Your task to perform on an android device: Open maps Image 0: 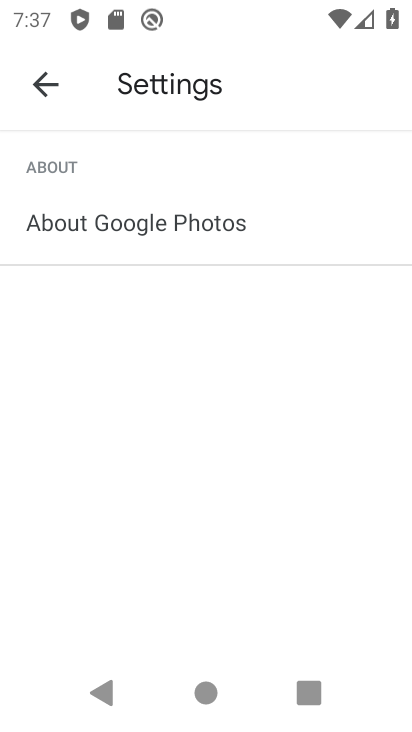
Step 0: press back button
Your task to perform on an android device: Open maps Image 1: 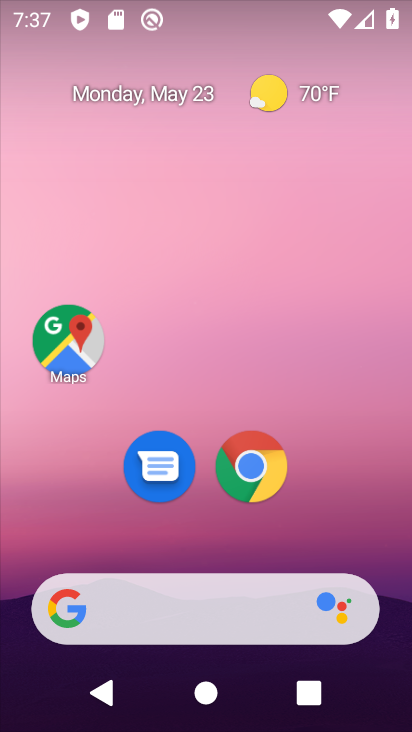
Step 1: click (68, 352)
Your task to perform on an android device: Open maps Image 2: 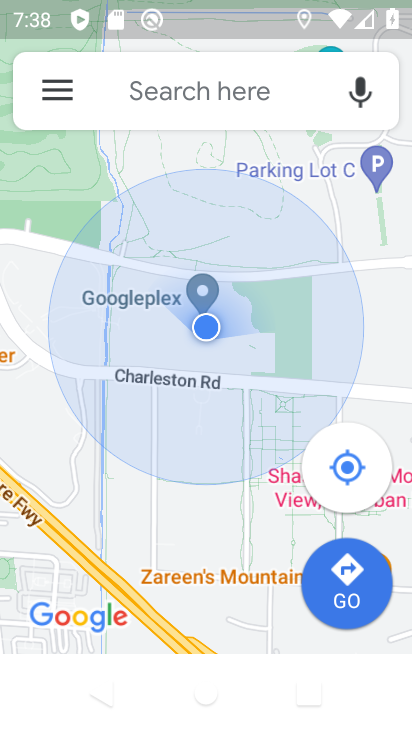
Step 2: task complete